Your task to perform on an android device: change notification settings in the gmail app Image 0: 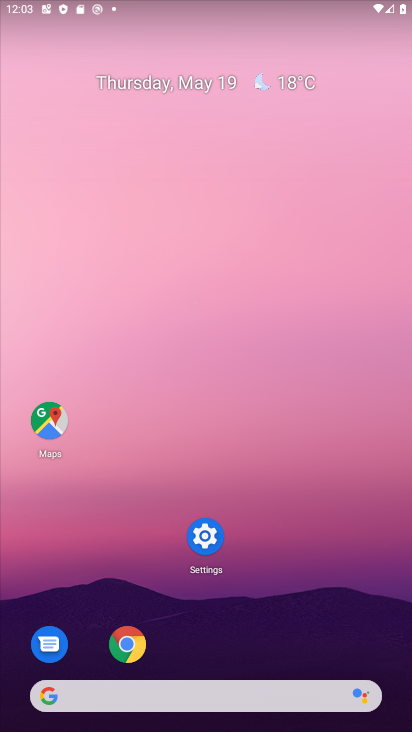
Step 0: drag from (319, 635) to (308, 213)
Your task to perform on an android device: change notification settings in the gmail app Image 1: 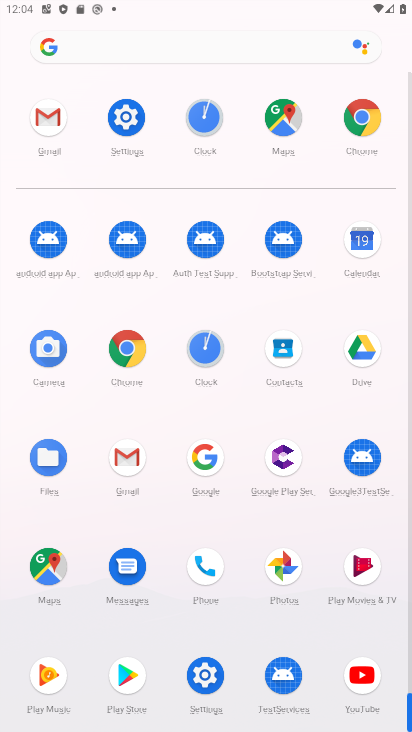
Step 1: click (48, 113)
Your task to perform on an android device: change notification settings in the gmail app Image 2: 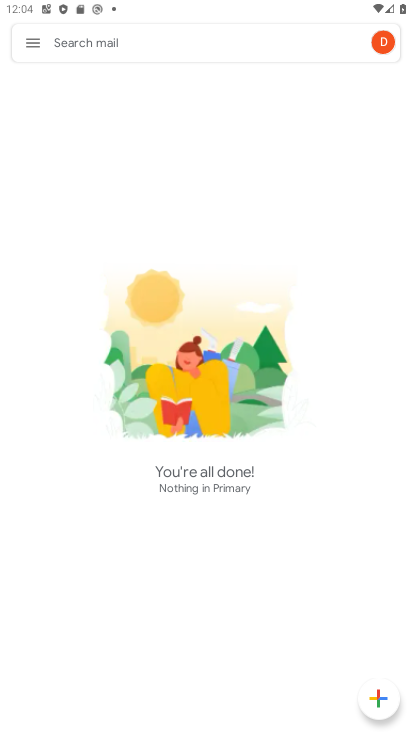
Step 2: click (53, 38)
Your task to perform on an android device: change notification settings in the gmail app Image 3: 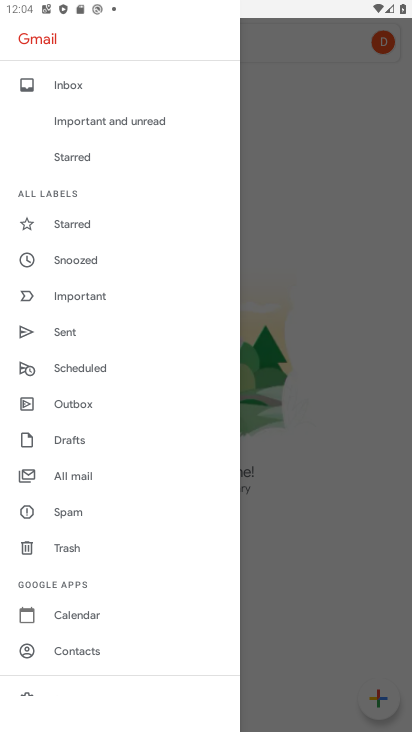
Step 3: drag from (101, 588) to (158, 208)
Your task to perform on an android device: change notification settings in the gmail app Image 4: 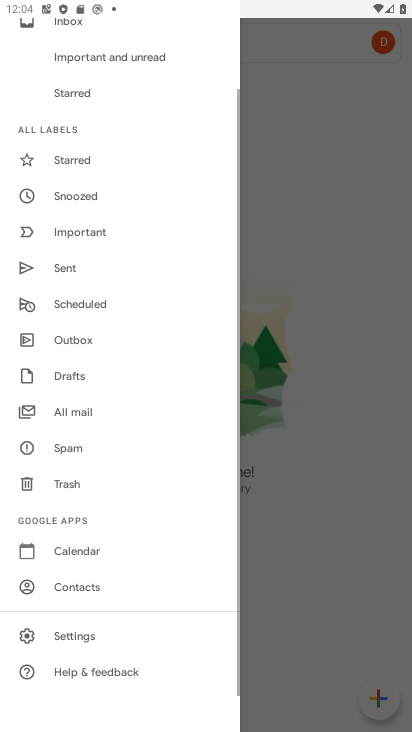
Step 4: click (80, 640)
Your task to perform on an android device: change notification settings in the gmail app Image 5: 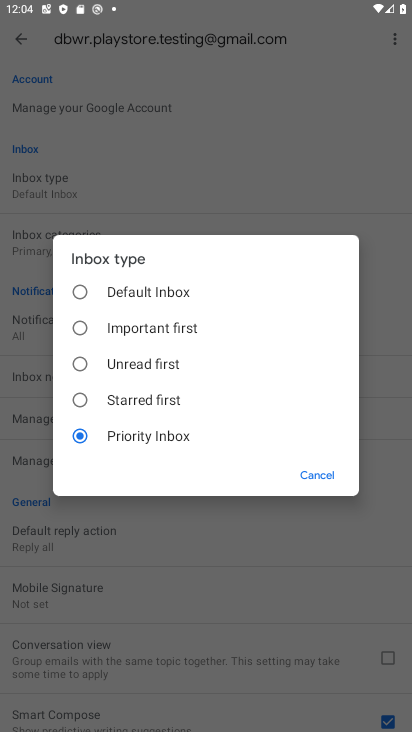
Step 5: click (315, 462)
Your task to perform on an android device: change notification settings in the gmail app Image 6: 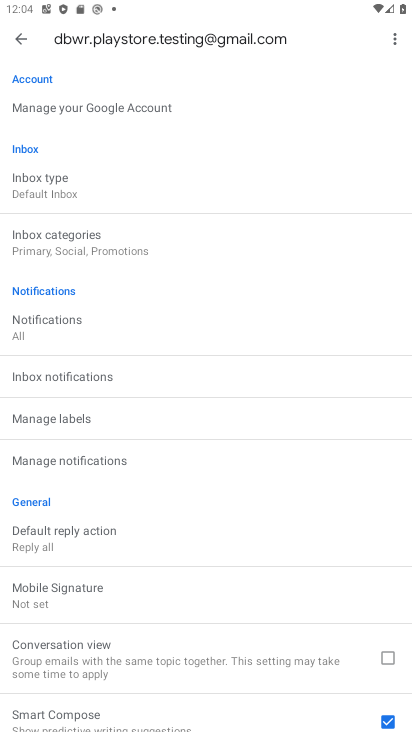
Step 6: click (106, 462)
Your task to perform on an android device: change notification settings in the gmail app Image 7: 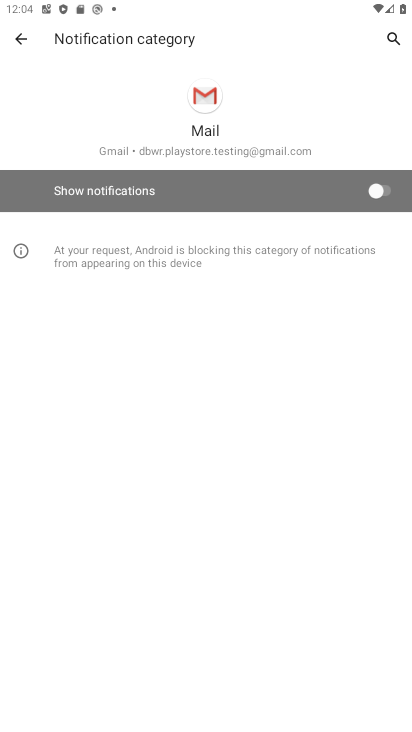
Step 7: click (363, 192)
Your task to perform on an android device: change notification settings in the gmail app Image 8: 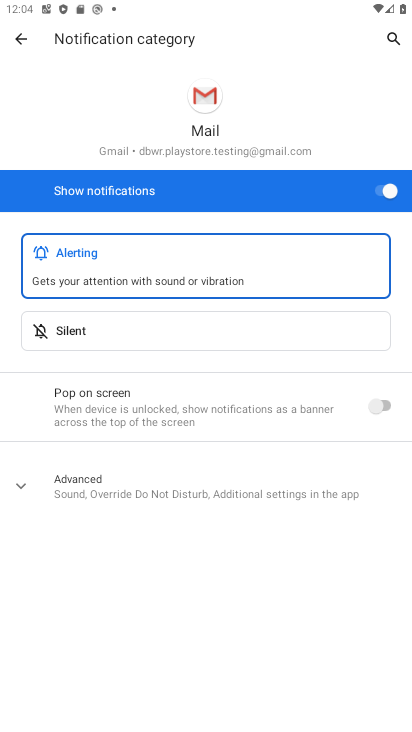
Step 8: task complete